Your task to perform on an android device: turn off smart reply in the gmail app Image 0: 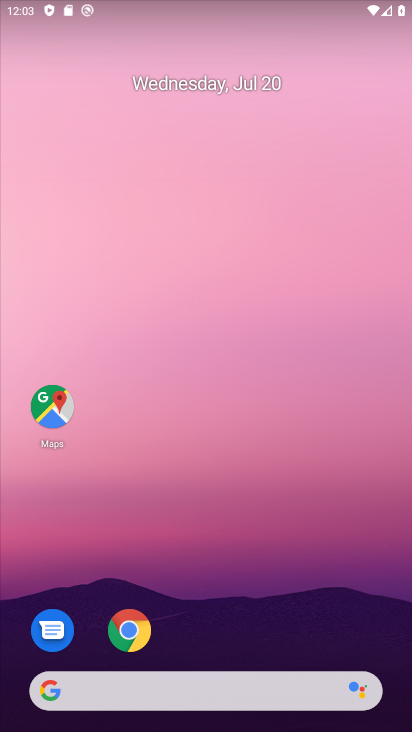
Step 0: press home button
Your task to perform on an android device: turn off smart reply in the gmail app Image 1: 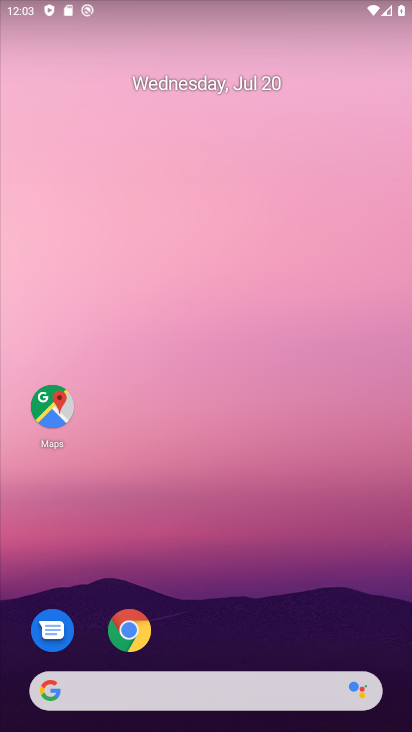
Step 1: drag from (230, 623) to (223, 120)
Your task to perform on an android device: turn off smart reply in the gmail app Image 2: 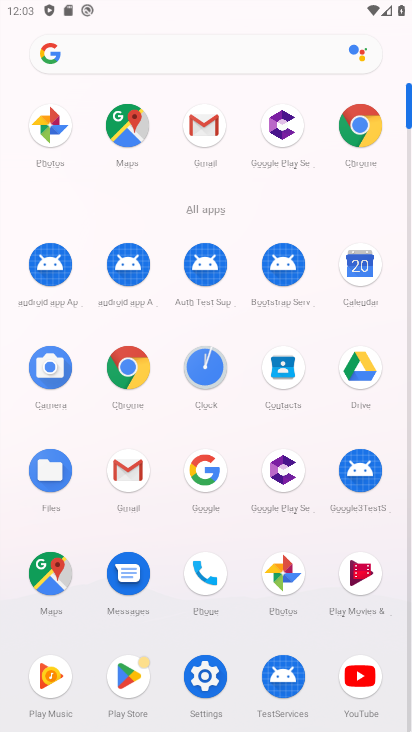
Step 2: click (207, 127)
Your task to perform on an android device: turn off smart reply in the gmail app Image 3: 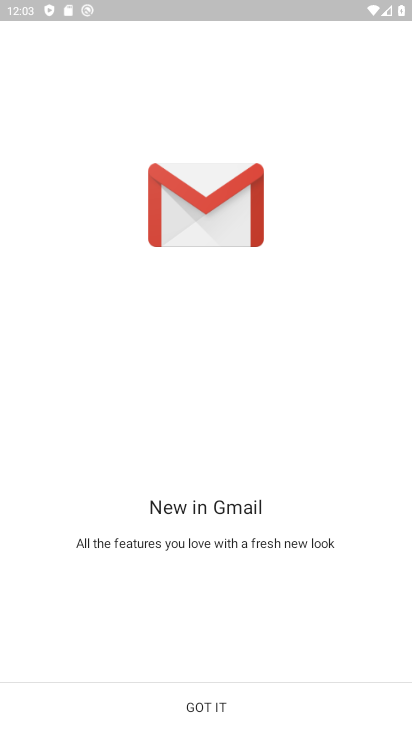
Step 3: click (197, 709)
Your task to perform on an android device: turn off smart reply in the gmail app Image 4: 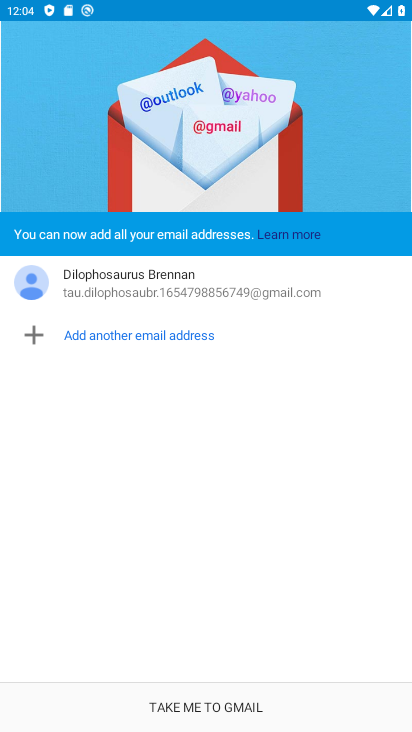
Step 4: click (198, 709)
Your task to perform on an android device: turn off smart reply in the gmail app Image 5: 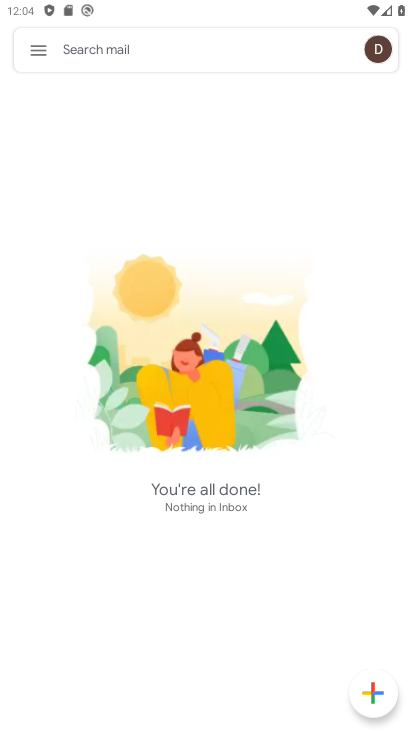
Step 5: click (36, 45)
Your task to perform on an android device: turn off smart reply in the gmail app Image 6: 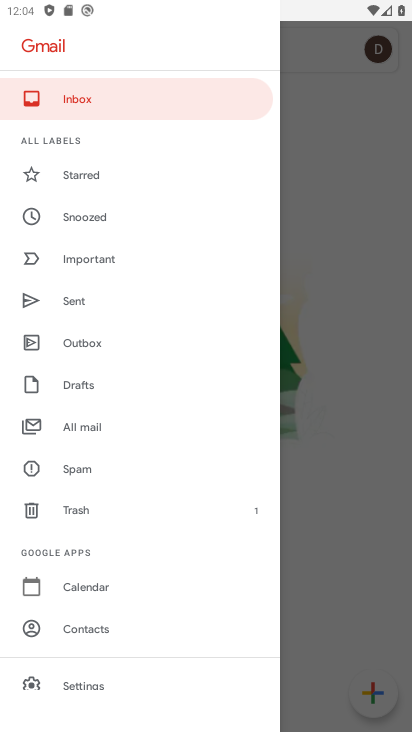
Step 6: drag from (93, 647) to (129, 281)
Your task to perform on an android device: turn off smart reply in the gmail app Image 7: 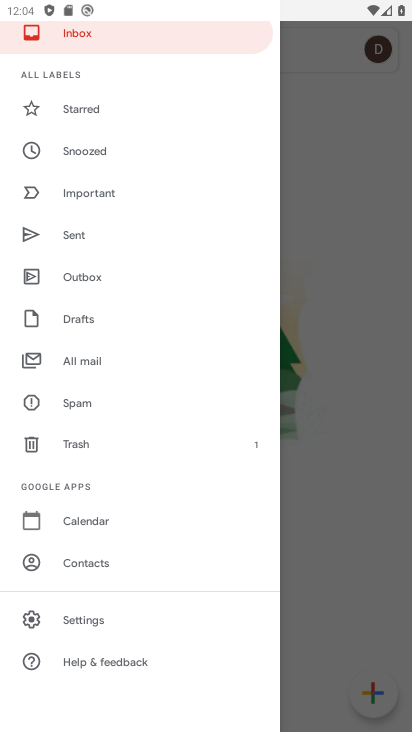
Step 7: click (82, 615)
Your task to perform on an android device: turn off smart reply in the gmail app Image 8: 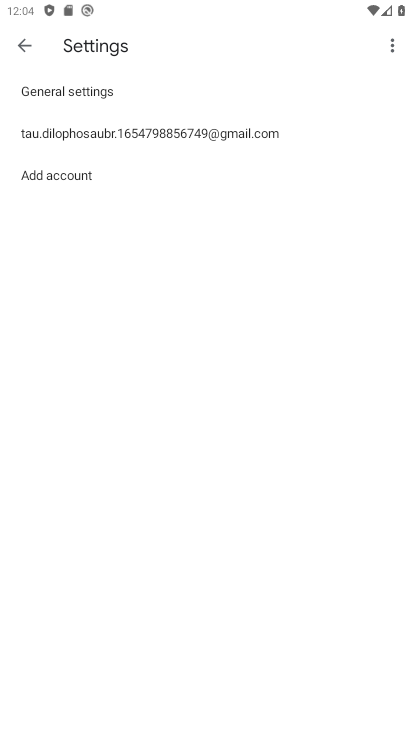
Step 8: click (46, 125)
Your task to perform on an android device: turn off smart reply in the gmail app Image 9: 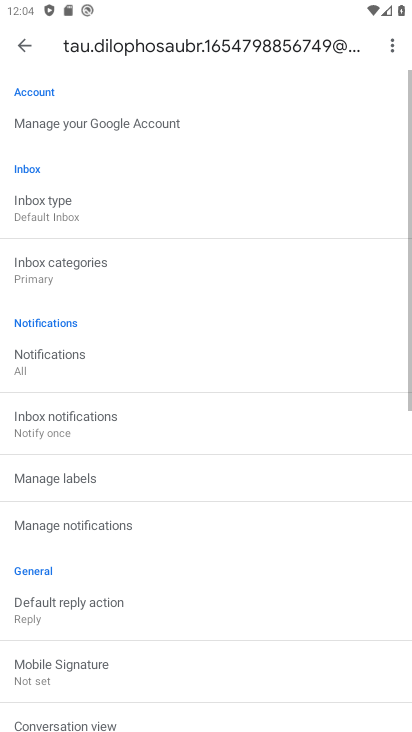
Step 9: drag from (151, 678) to (189, 294)
Your task to perform on an android device: turn off smart reply in the gmail app Image 10: 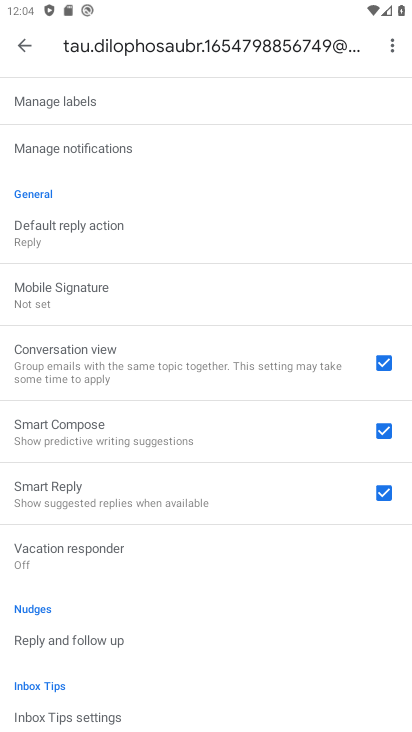
Step 10: click (389, 494)
Your task to perform on an android device: turn off smart reply in the gmail app Image 11: 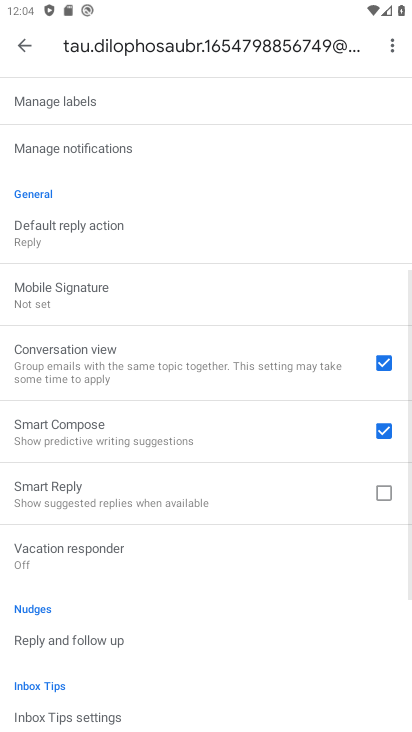
Step 11: task complete